Your task to perform on an android device: star an email in the gmail app Image 0: 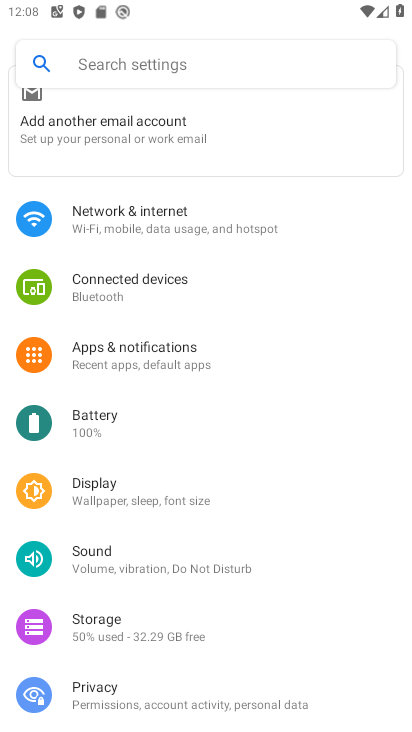
Step 0: press home button
Your task to perform on an android device: star an email in the gmail app Image 1: 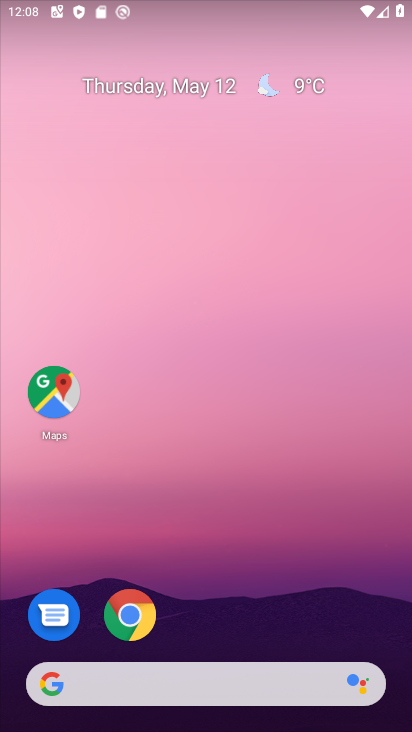
Step 1: drag from (298, 582) to (226, 176)
Your task to perform on an android device: star an email in the gmail app Image 2: 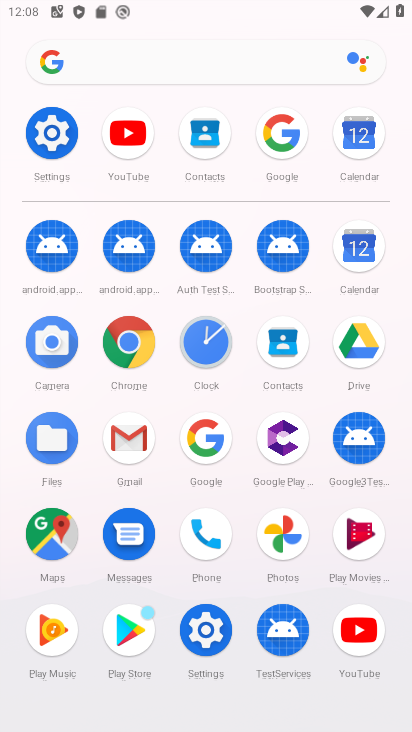
Step 2: click (141, 436)
Your task to perform on an android device: star an email in the gmail app Image 3: 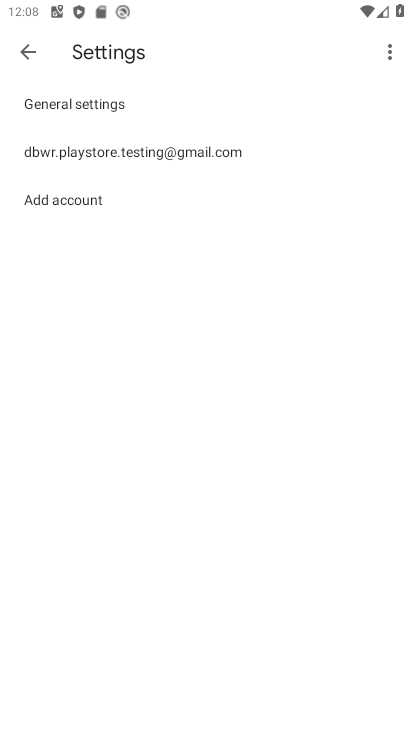
Step 3: click (33, 50)
Your task to perform on an android device: star an email in the gmail app Image 4: 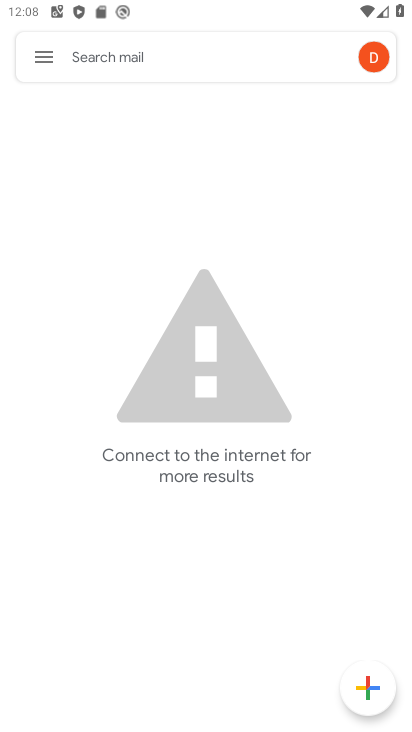
Step 4: click (33, 54)
Your task to perform on an android device: star an email in the gmail app Image 5: 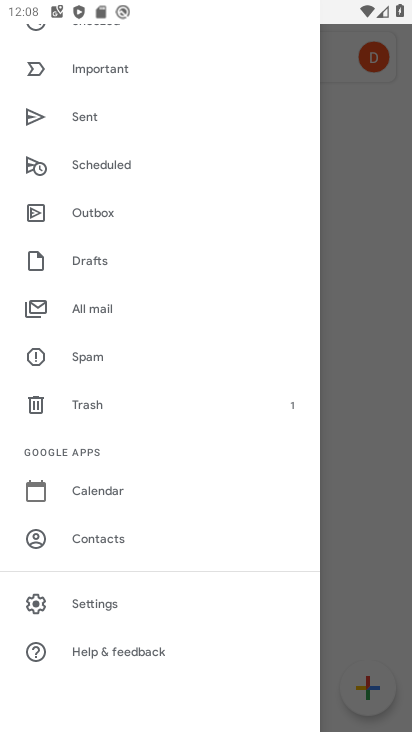
Step 5: click (106, 313)
Your task to perform on an android device: star an email in the gmail app Image 6: 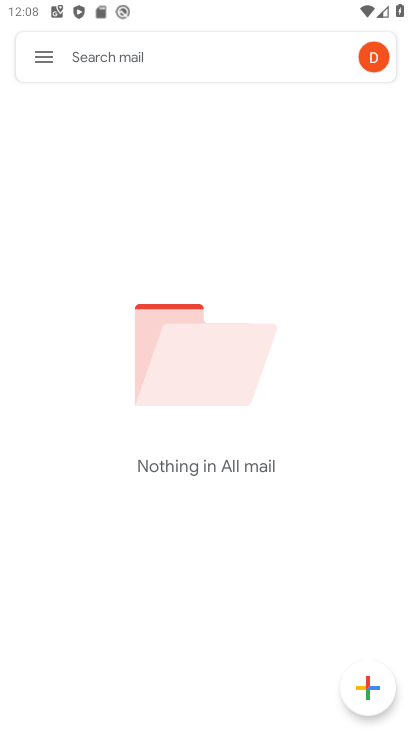
Step 6: task complete